Your task to perform on an android device: empty trash in google photos Image 0: 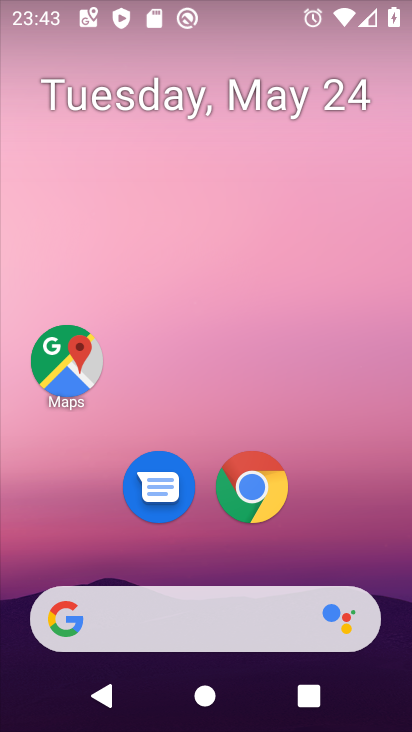
Step 0: drag from (229, 540) to (228, 24)
Your task to perform on an android device: empty trash in google photos Image 1: 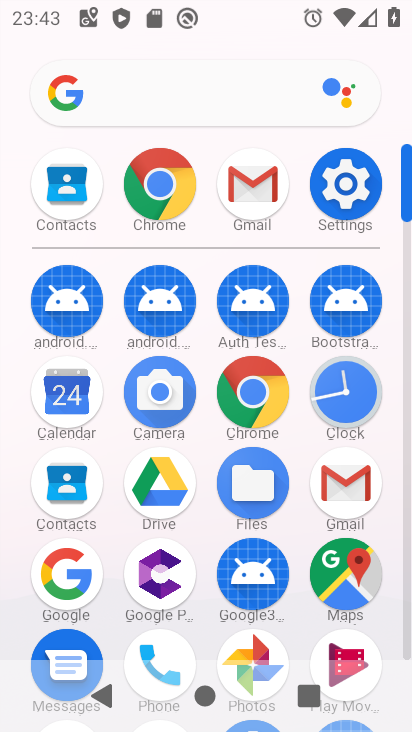
Step 1: click (255, 647)
Your task to perform on an android device: empty trash in google photos Image 2: 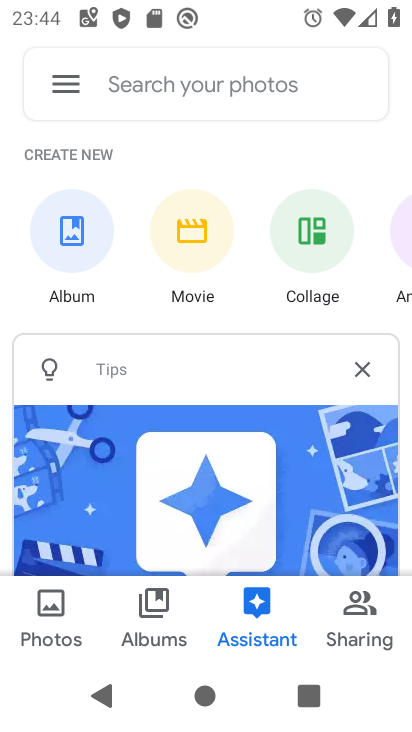
Step 2: click (67, 71)
Your task to perform on an android device: empty trash in google photos Image 3: 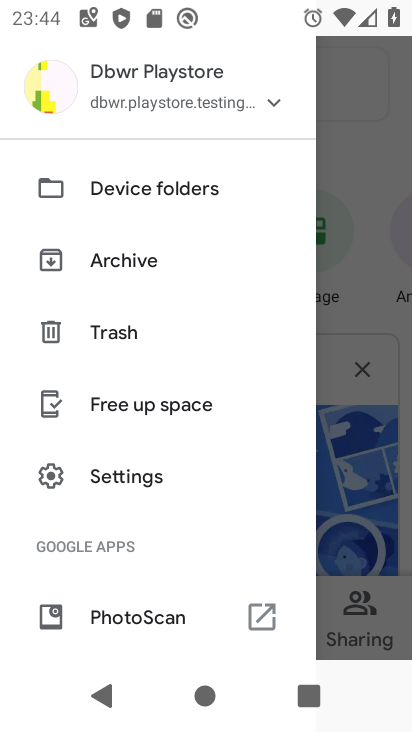
Step 3: click (134, 326)
Your task to perform on an android device: empty trash in google photos Image 4: 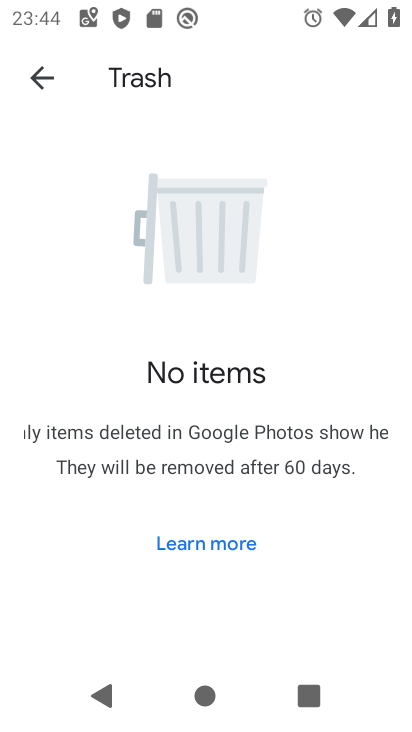
Step 4: task complete